Your task to perform on an android device: Show me the alarms in the clock app Image 0: 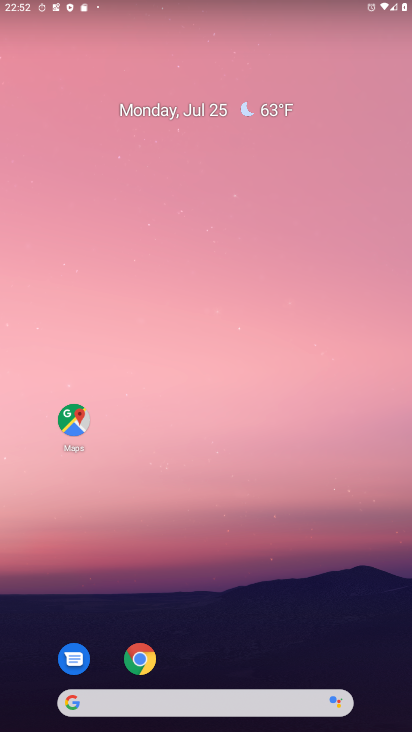
Step 0: drag from (202, 715) to (246, 98)
Your task to perform on an android device: Show me the alarms in the clock app Image 1: 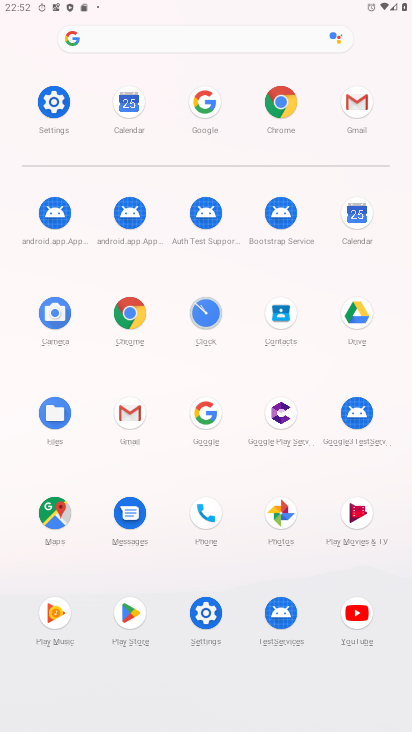
Step 1: click (207, 308)
Your task to perform on an android device: Show me the alarms in the clock app Image 2: 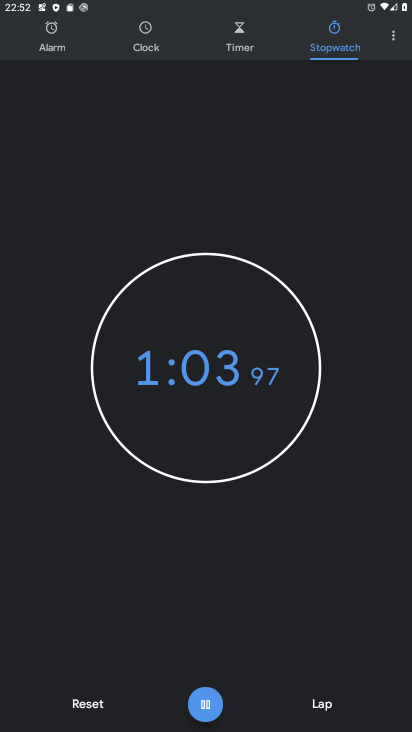
Step 2: click (50, 38)
Your task to perform on an android device: Show me the alarms in the clock app Image 3: 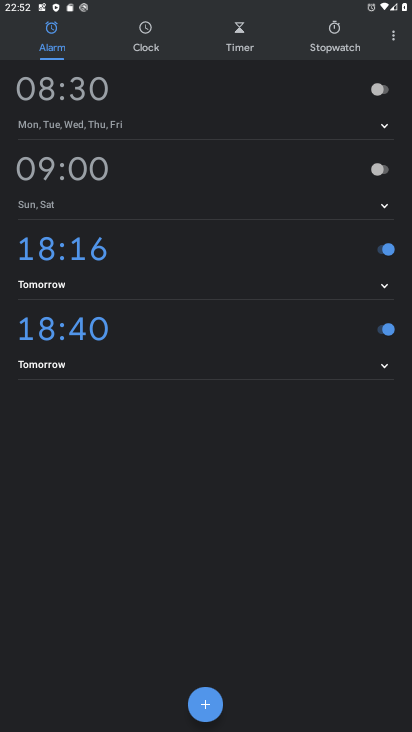
Step 3: task complete